Your task to perform on an android device: turn on wifi Image 0: 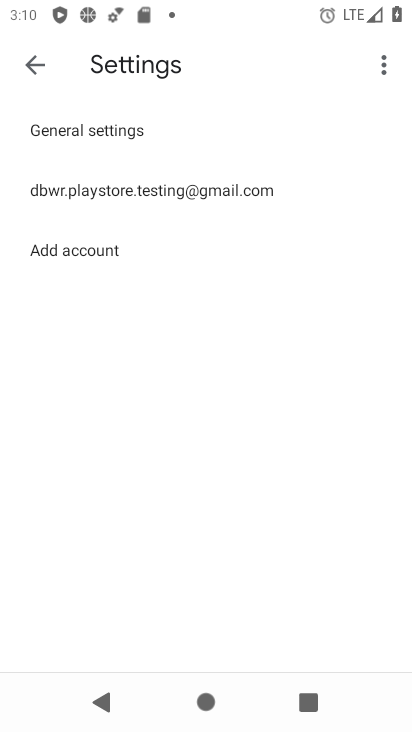
Step 0: press back button
Your task to perform on an android device: turn on wifi Image 1: 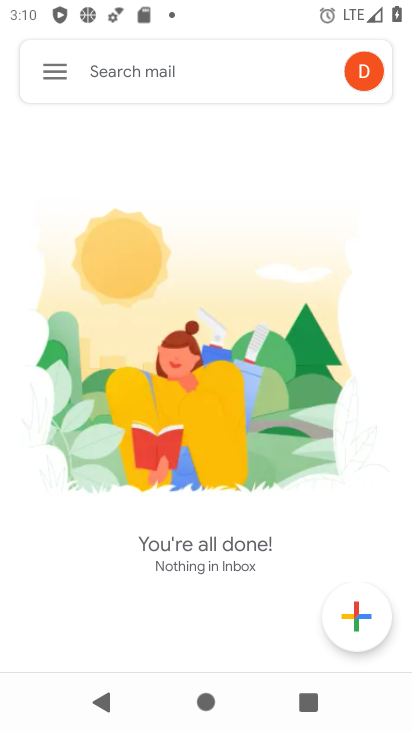
Step 1: press back button
Your task to perform on an android device: turn on wifi Image 2: 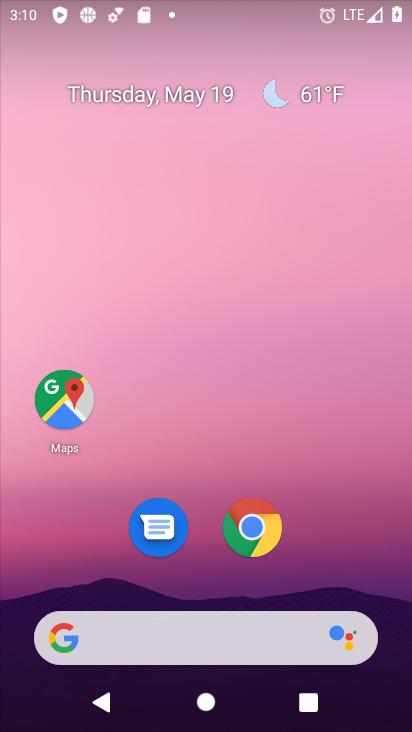
Step 2: drag from (222, 11) to (209, 464)
Your task to perform on an android device: turn on wifi Image 3: 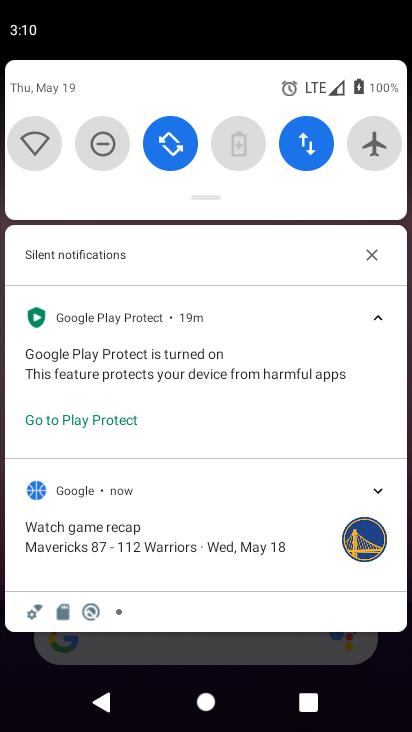
Step 3: click (9, 157)
Your task to perform on an android device: turn on wifi Image 4: 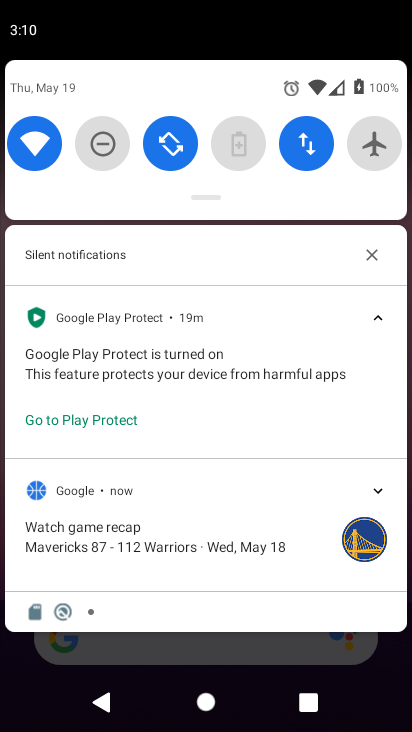
Step 4: task complete